Your task to perform on an android device: Open the calendar app, open the side menu, and click the "Day" option Image 0: 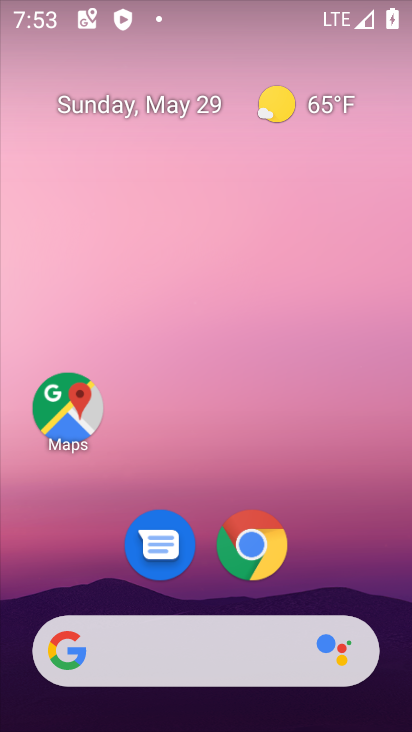
Step 0: drag from (196, 599) to (248, 301)
Your task to perform on an android device: Open the calendar app, open the side menu, and click the "Day" option Image 1: 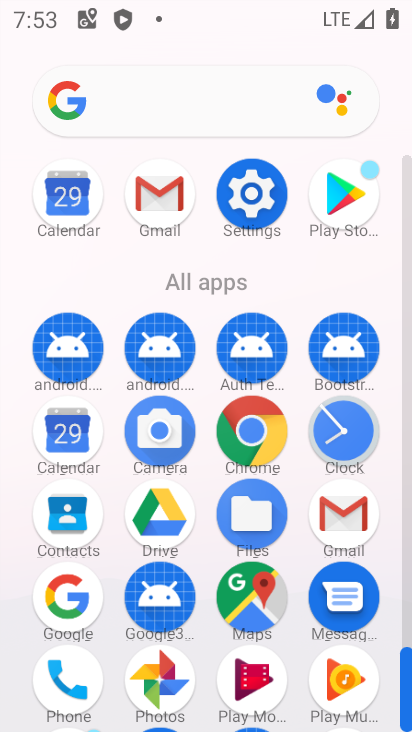
Step 1: click (66, 430)
Your task to perform on an android device: Open the calendar app, open the side menu, and click the "Day" option Image 2: 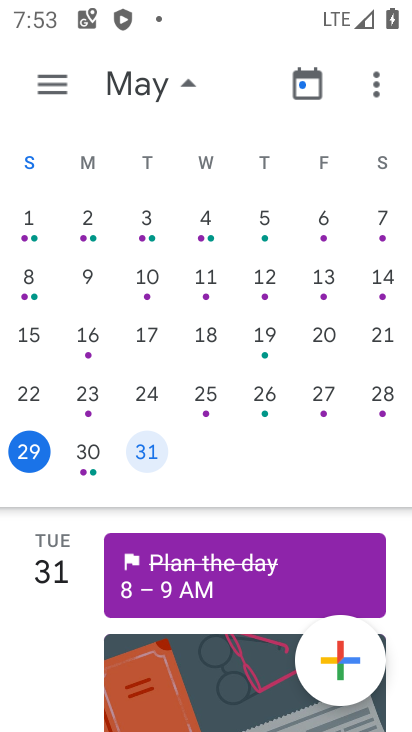
Step 2: click (55, 91)
Your task to perform on an android device: Open the calendar app, open the side menu, and click the "Day" option Image 3: 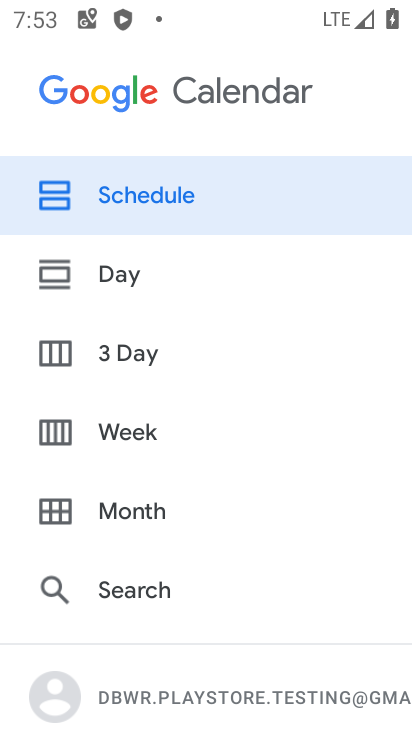
Step 3: click (125, 275)
Your task to perform on an android device: Open the calendar app, open the side menu, and click the "Day" option Image 4: 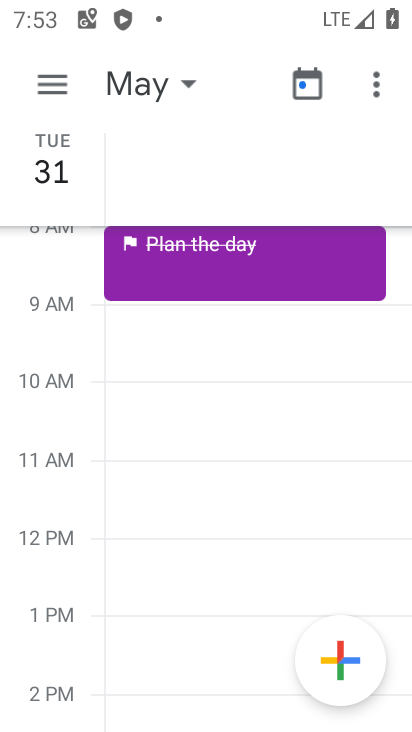
Step 4: task complete